Your task to perform on an android device: snooze an email in the gmail app Image 0: 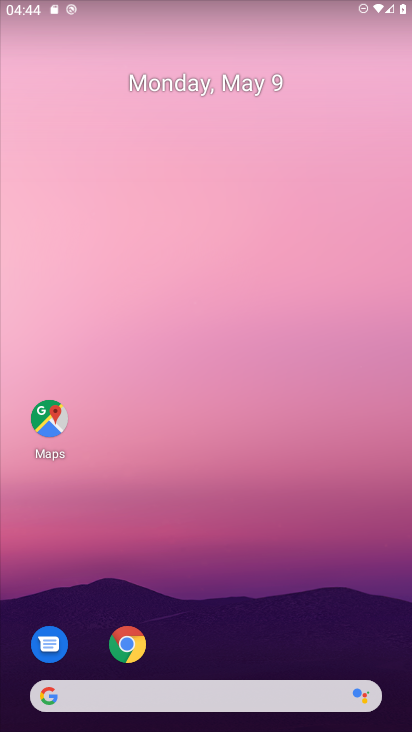
Step 0: drag from (256, 556) to (238, 158)
Your task to perform on an android device: snooze an email in the gmail app Image 1: 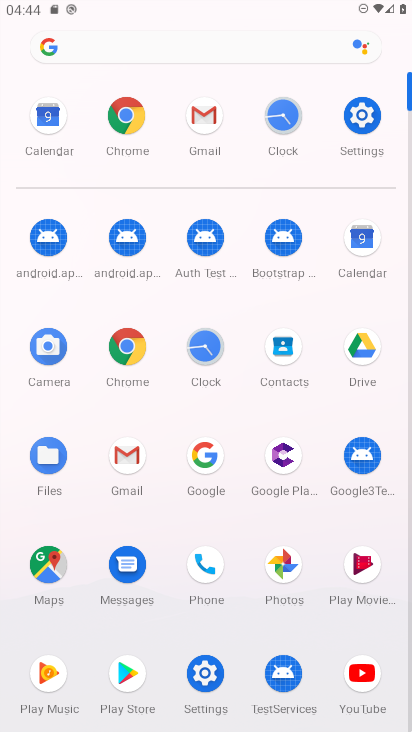
Step 1: click (204, 137)
Your task to perform on an android device: snooze an email in the gmail app Image 2: 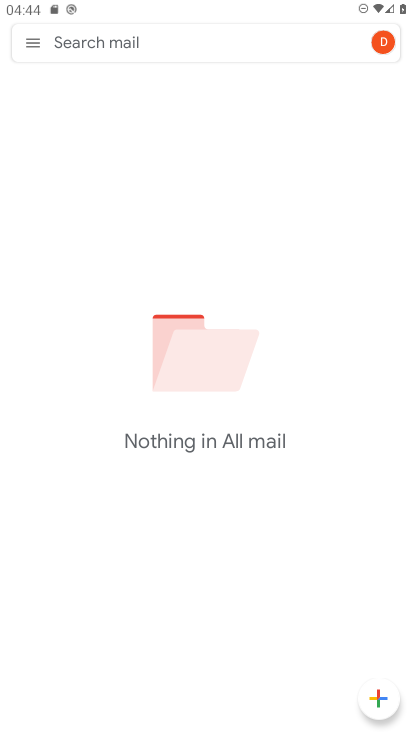
Step 2: click (27, 36)
Your task to perform on an android device: snooze an email in the gmail app Image 3: 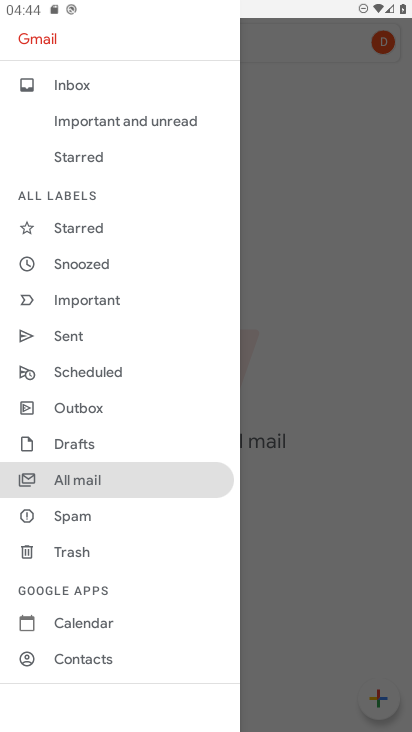
Step 3: click (86, 263)
Your task to perform on an android device: snooze an email in the gmail app Image 4: 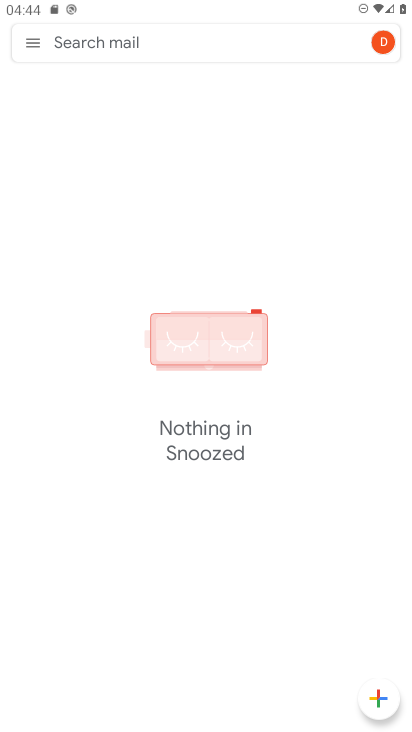
Step 4: task complete